Your task to perform on an android device: allow cookies in the chrome app Image 0: 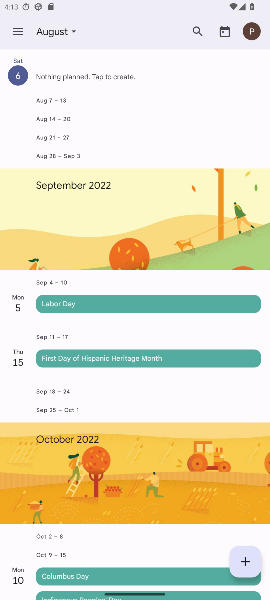
Step 0: press home button
Your task to perform on an android device: allow cookies in the chrome app Image 1: 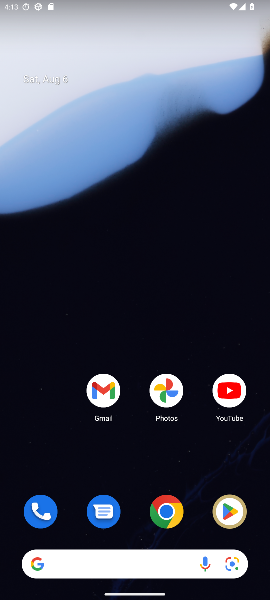
Step 1: click (159, 515)
Your task to perform on an android device: allow cookies in the chrome app Image 2: 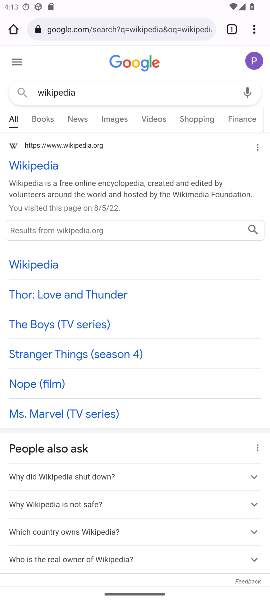
Step 2: click (250, 32)
Your task to perform on an android device: allow cookies in the chrome app Image 3: 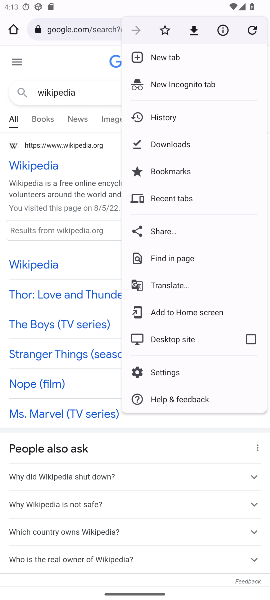
Step 3: click (167, 376)
Your task to perform on an android device: allow cookies in the chrome app Image 4: 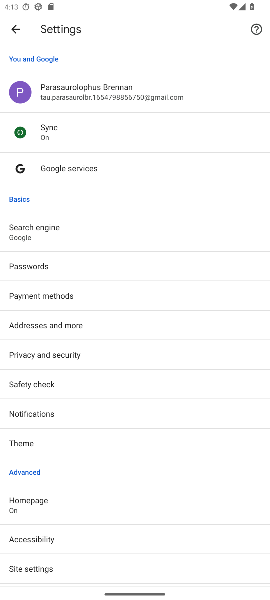
Step 4: click (52, 572)
Your task to perform on an android device: allow cookies in the chrome app Image 5: 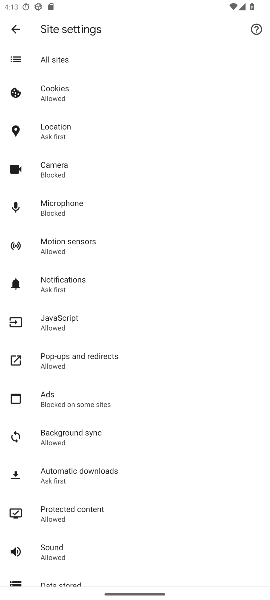
Step 5: click (76, 96)
Your task to perform on an android device: allow cookies in the chrome app Image 6: 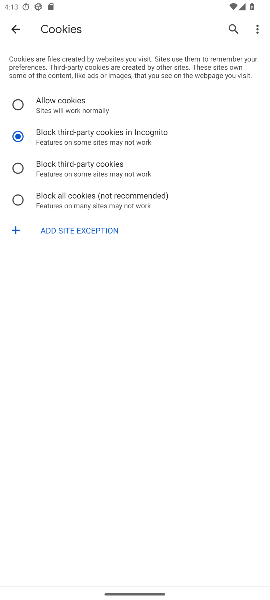
Step 6: click (74, 104)
Your task to perform on an android device: allow cookies in the chrome app Image 7: 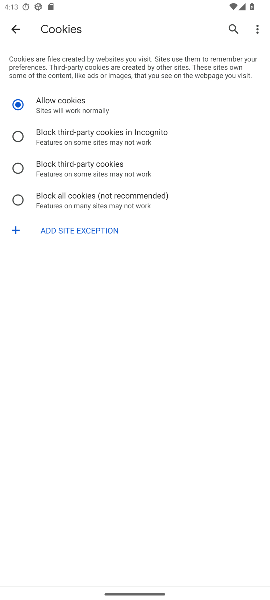
Step 7: task complete